Your task to perform on an android device: toggle pop-ups in chrome Image 0: 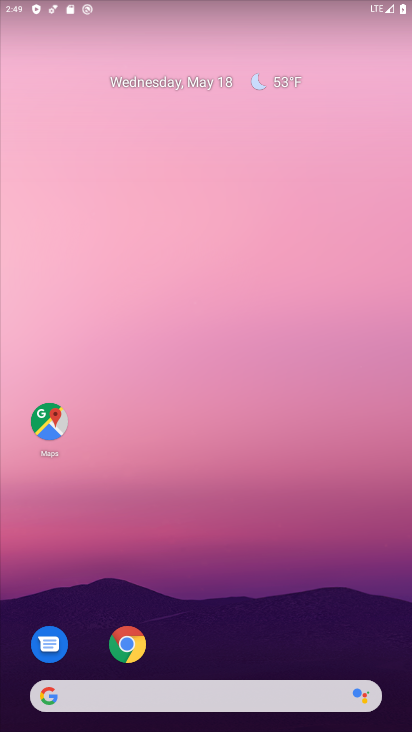
Step 0: click (131, 656)
Your task to perform on an android device: toggle pop-ups in chrome Image 1: 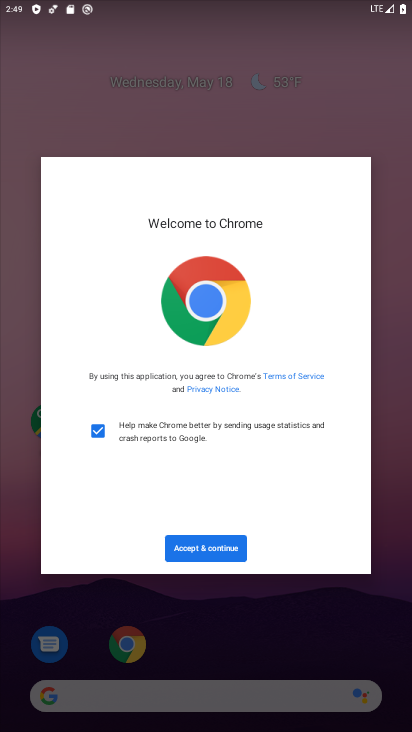
Step 1: click (193, 544)
Your task to perform on an android device: toggle pop-ups in chrome Image 2: 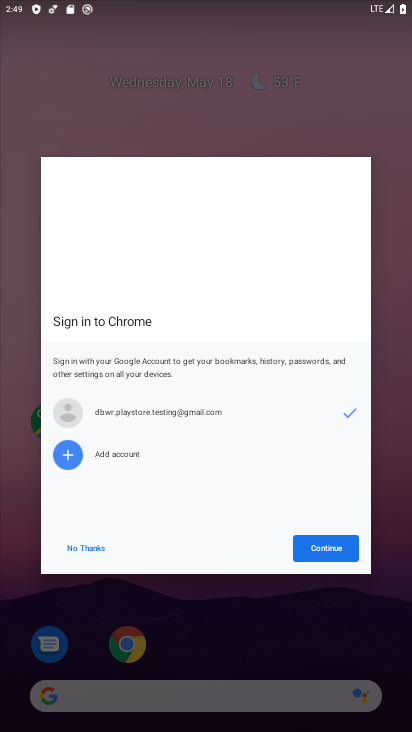
Step 2: click (332, 544)
Your task to perform on an android device: toggle pop-ups in chrome Image 3: 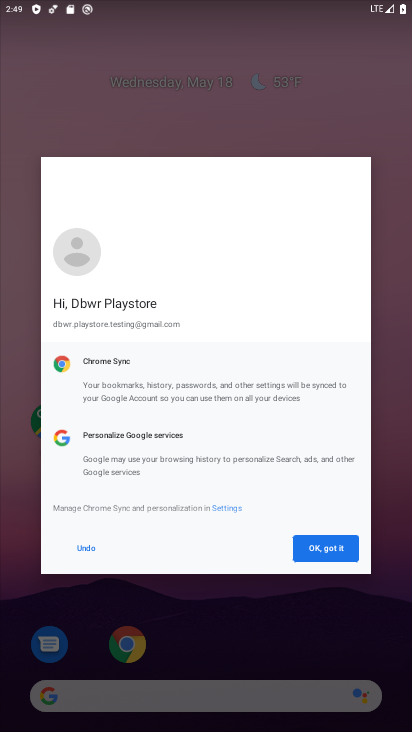
Step 3: click (328, 547)
Your task to perform on an android device: toggle pop-ups in chrome Image 4: 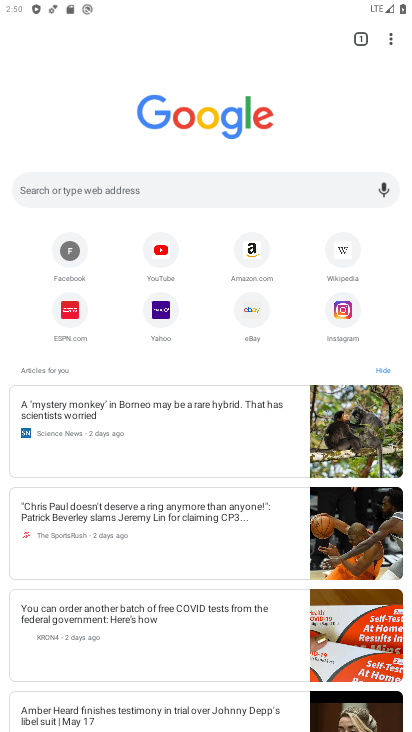
Step 4: click (391, 42)
Your task to perform on an android device: toggle pop-ups in chrome Image 5: 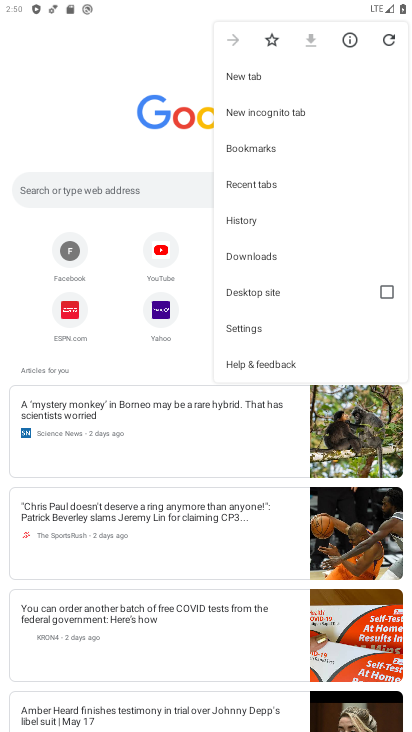
Step 5: click (249, 324)
Your task to perform on an android device: toggle pop-ups in chrome Image 6: 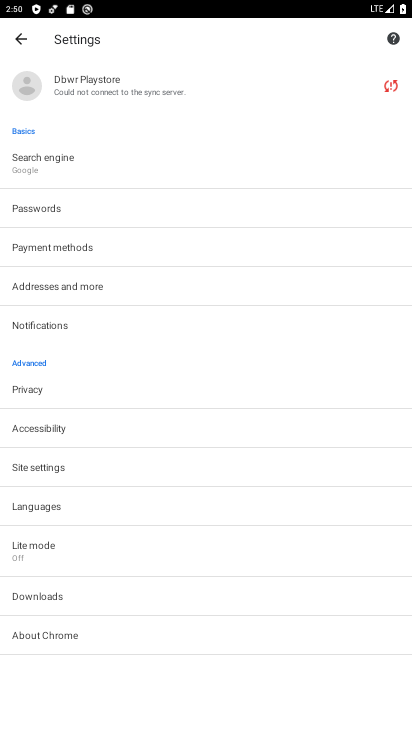
Step 6: click (34, 470)
Your task to perform on an android device: toggle pop-ups in chrome Image 7: 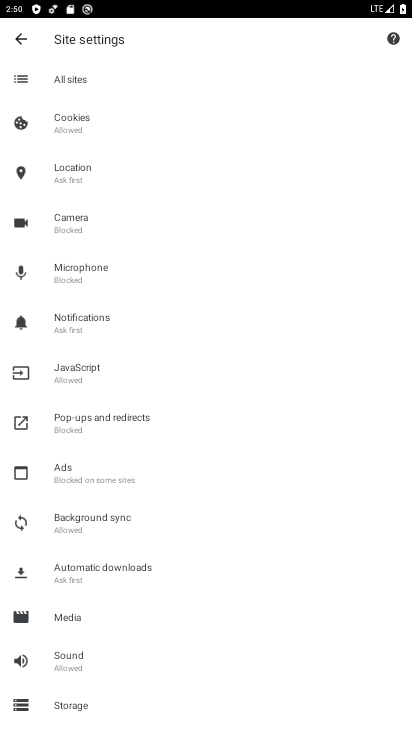
Step 7: click (92, 434)
Your task to perform on an android device: toggle pop-ups in chrome Image 8: 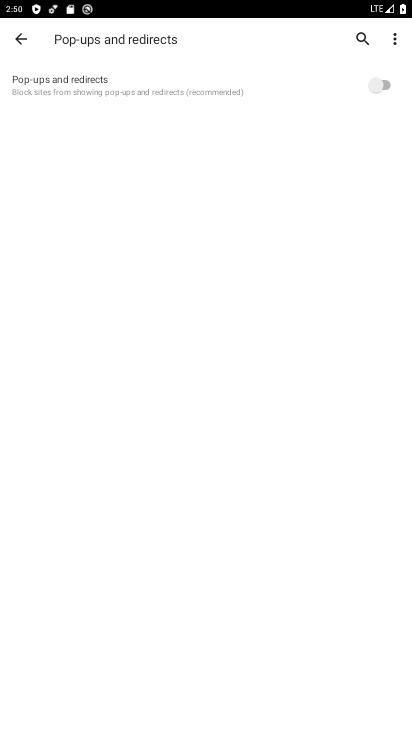
Step 8: click (87, 426)
Your task to perform on an android device: toggle pop-ups in chrome Image 9: 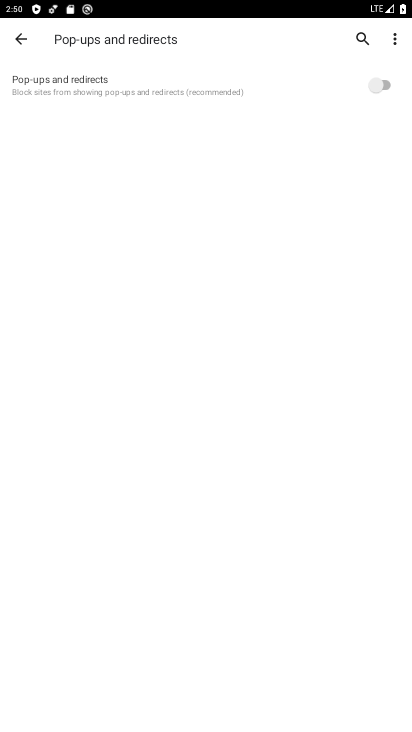
Step 9: click (84, 420)
Your task to perform on an android device: toggle pop-ups in chrome Image 10: 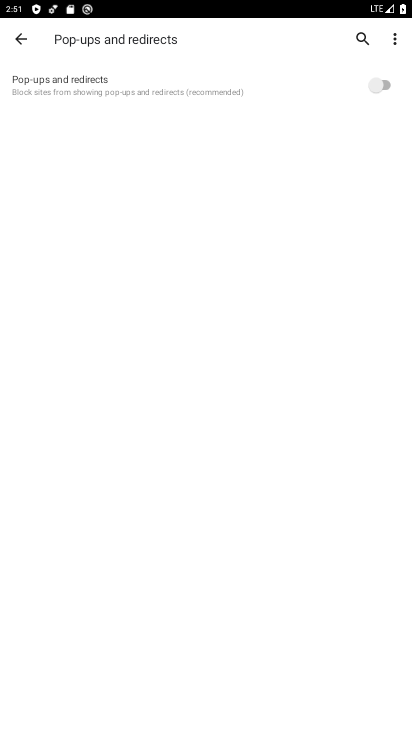
Step 10: click (382, 81)
Your task to perform on an android device: toggle pop-ups in chrome Image 11: 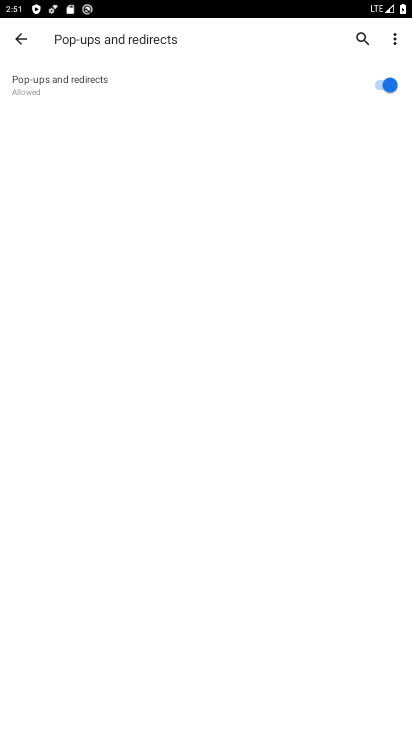
Step 11: click (384, 80)
Your task to perform on an android device: toggle pop-ups in chrome Image 12: 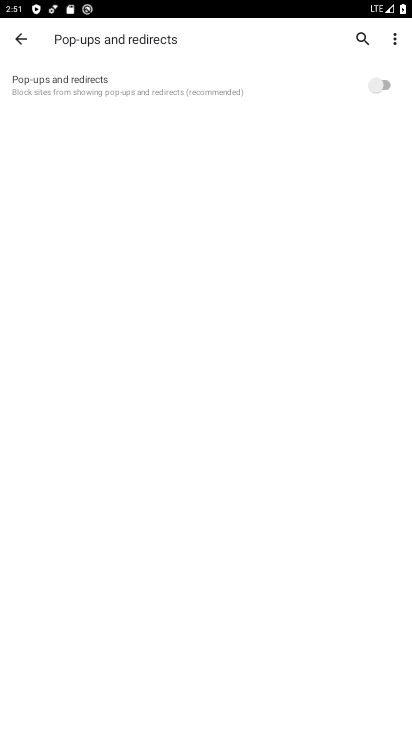
Step 12: click (383, 78)
Your task to perform on an android device: toggle pop-ups in chrome Image 13: 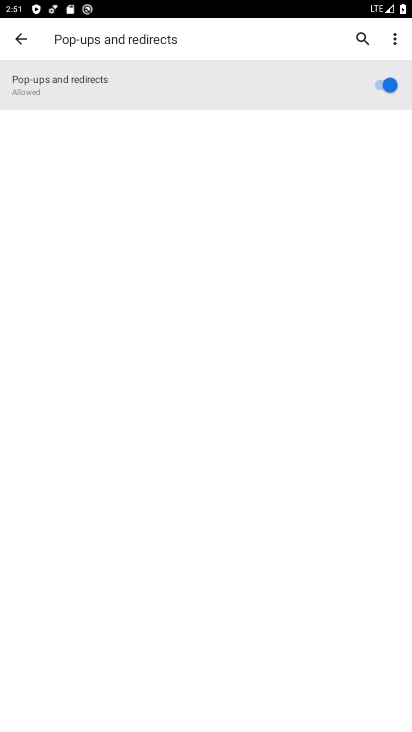
Step 13: click (370, 81)
Your task to perform on an android device: toggle pop-ups in chrome Image 14: 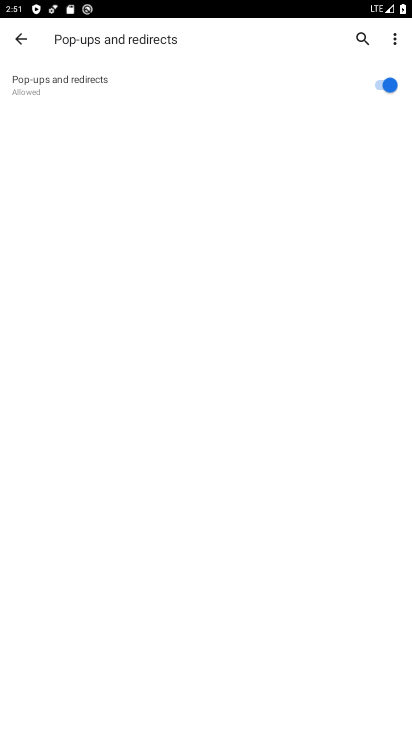
Step 14: task complete